Your task to perform on an android device: turn on bluetooth scan Image 0: 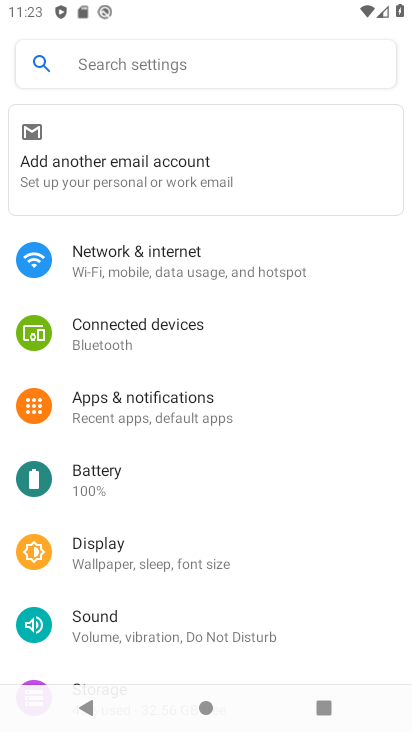
Step 0: press home button
Your task to perform on an android device: turn on bluetooth scan Image 1: 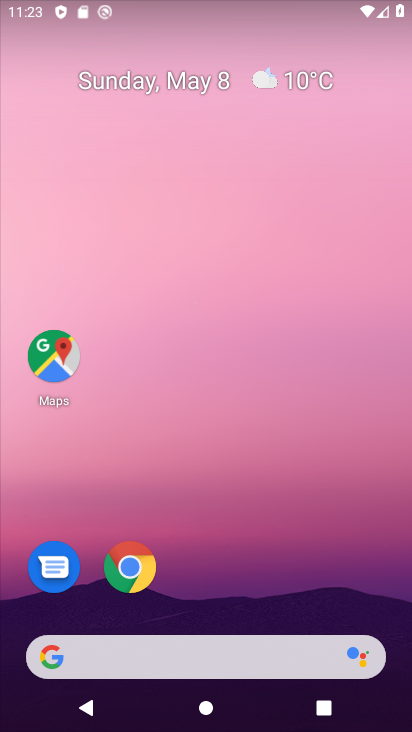
Step 1: drag from (286, 532) to (308, 169)
Your task to perform on an android device: turn on bluetooth scan Image 2: 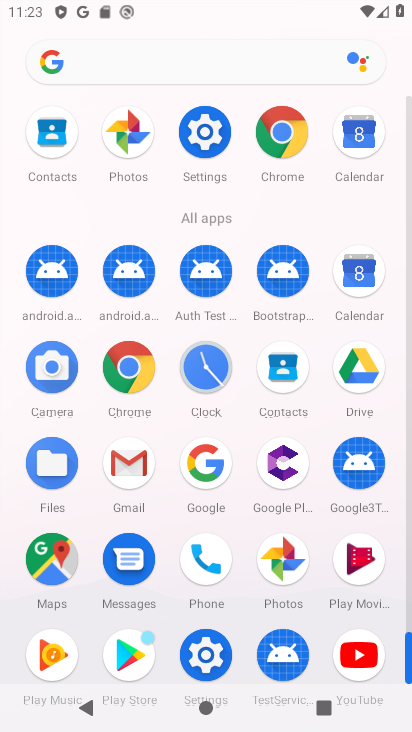
Step 2: click (207, 160)
Your task to perform on an android device: turn on bluetooth scan Image 3: 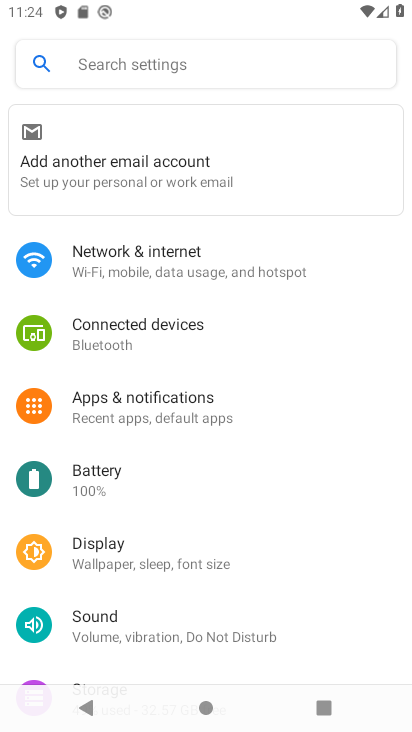
Step 3: click (145, 318)
Your task to perform on an android device: turn on bluetooth scan Image 4: 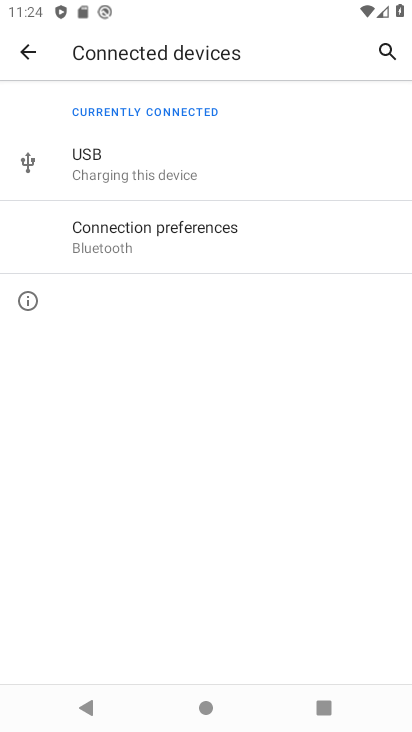
Step 4: click (181, 250)
Your task to perform on an android device: turn on bluetooth scan Image 5: 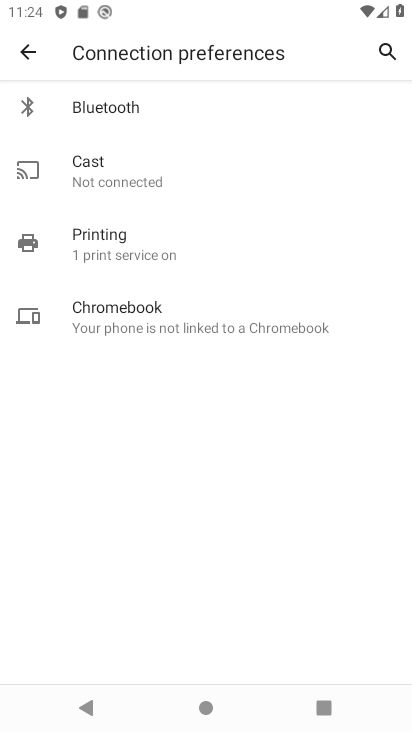
Step 5: click (201, 119)
Your task to perform on an android device: turn on bluetooth scan Image 6: 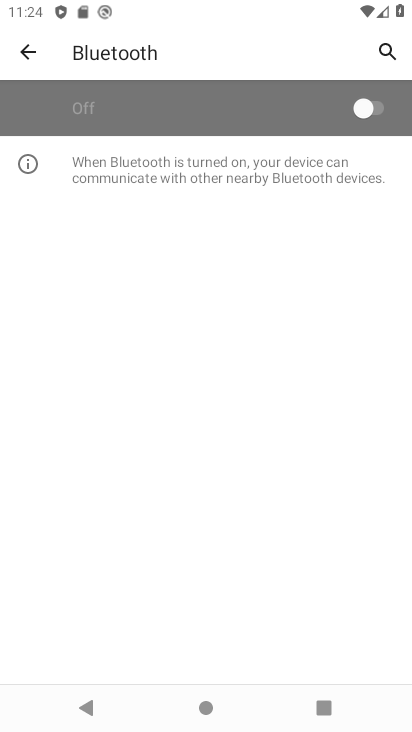
Step 6: click (280, 109)
Your task to perform on an android device: turn on bluetooth scan Image 7: 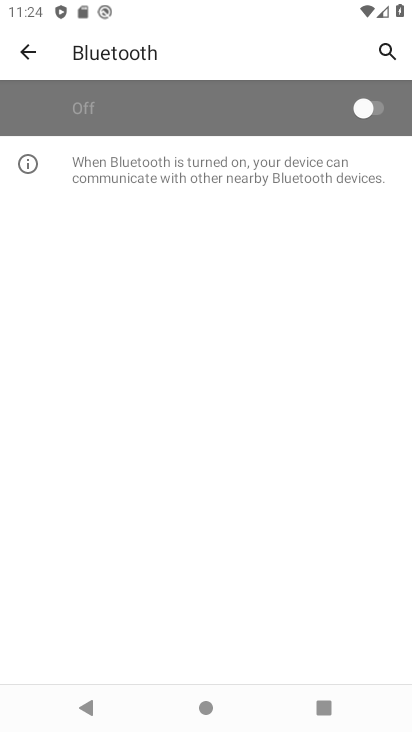
Step 7: task complete